Your task to perform on an android device: add a label to a message in the gmail app Image 0: 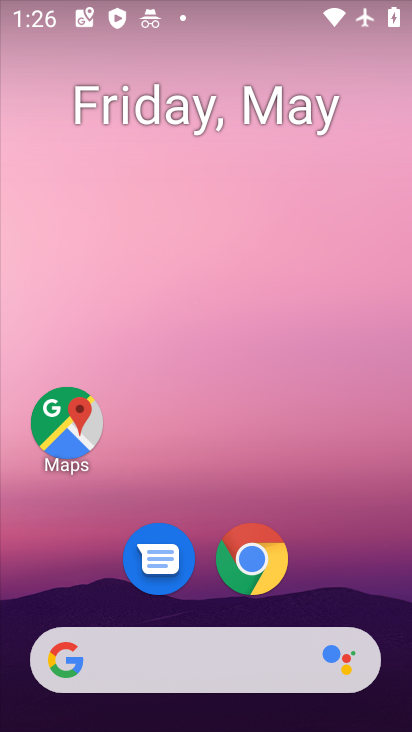
Step 0: drag from (363, 557) to (353, 144)
Your task to perform on an android device: add a label to a message in the gmail app Image 1: 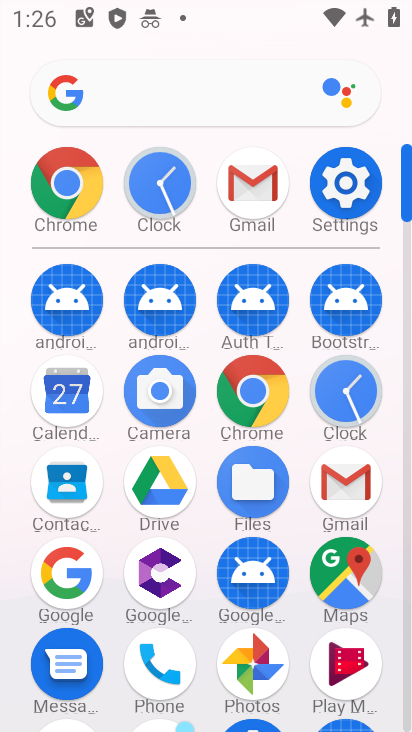
Step 1: click (265, 199)
Your task to perform on an android device: add a label to a message in the gmail app Image 2: 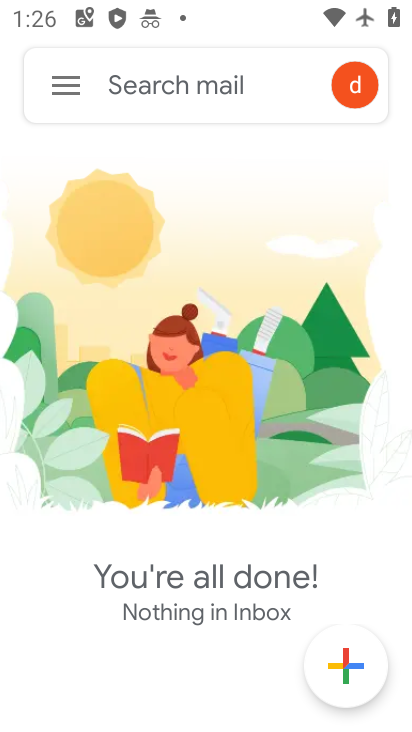
Step 2: click (71, 76)
Your task to perform on an android device: add a label to a message in the gmail app Image 3: 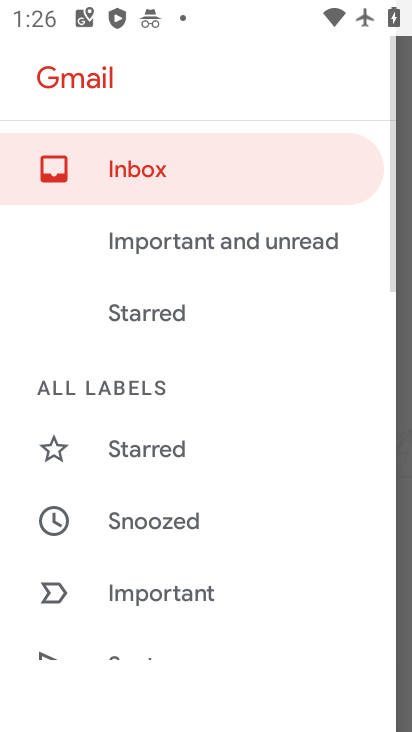
Step 3: drag from (227, 571) to (294, 216)
Your task to perform on an android device: add a label to a message in the gmail app Image 4: 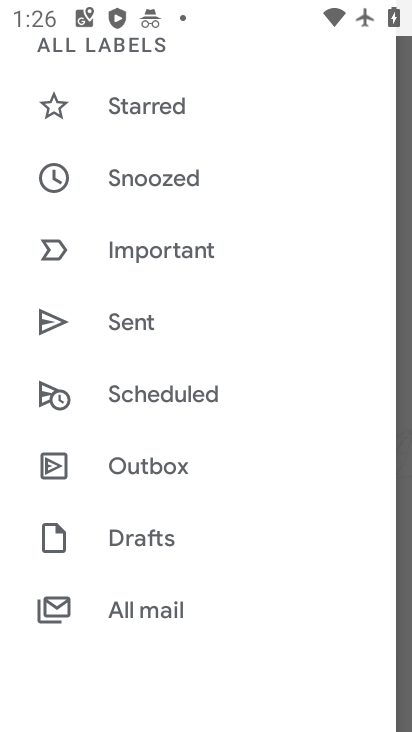
Step 4: drag from (121, 525) to (250, 261)
Your task to perform on an android device: add a label to a message in the gmail app Image 5: 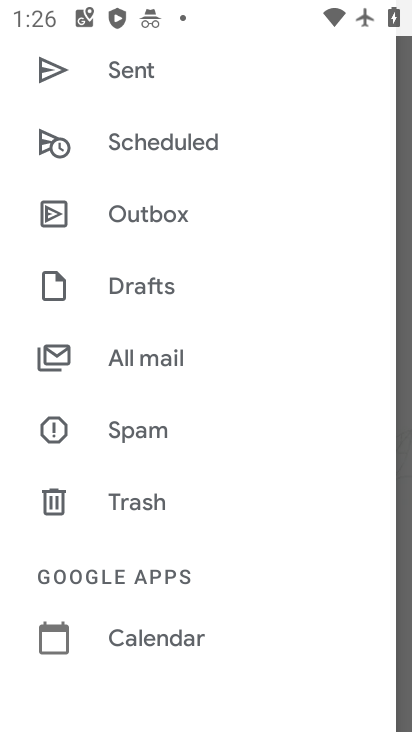
Step 5: click (152, 370)
Your task to perform on an android device: add a label to a message in the gmail app Image 6: 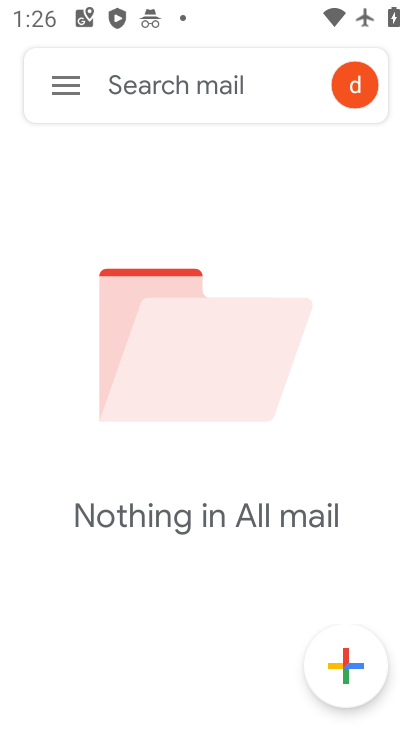
Step 6: task complete